Your task to perform on an android device: change your default location settings in chrome Image 0: 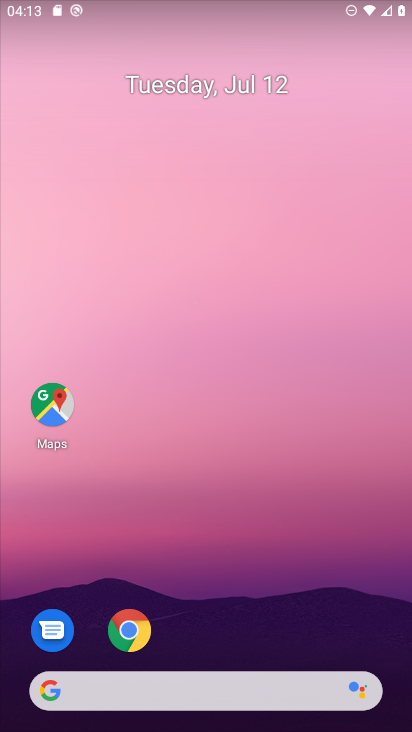
Step 0: click (125, 631)
Your task to perform on an android device: change your default location settings in chrome Image 1: 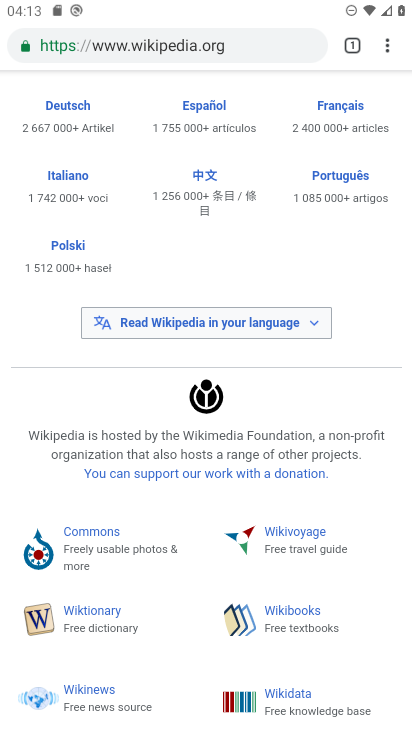
Step 1: click (386, 48)
Your task to perform on an android device: change your default location settings in chrome Image 2: 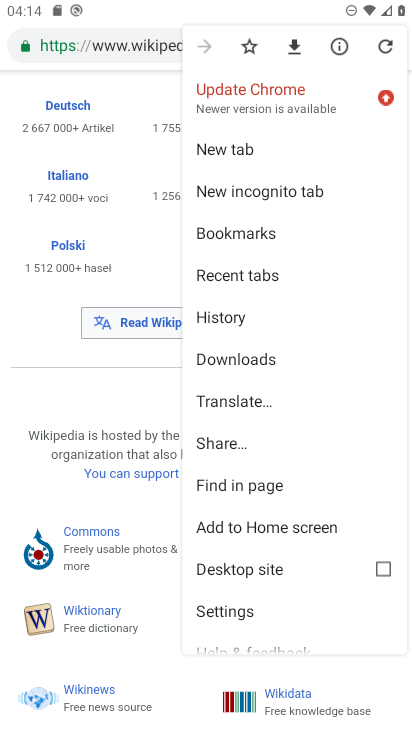
Step 2: click (222, 615)
Your task to perform on an android device: change your default location settings in chrome Image 3: 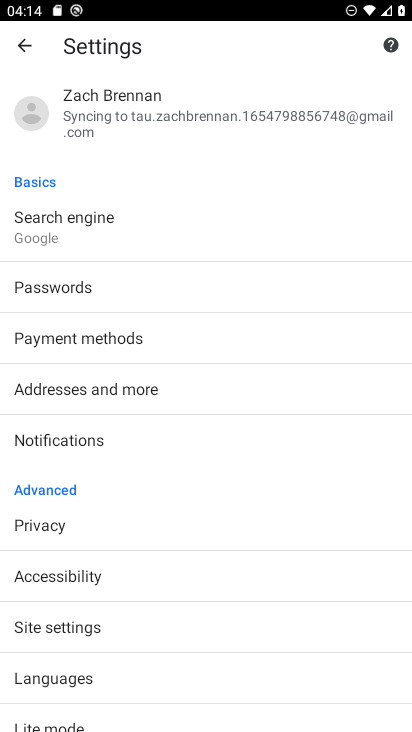
Step 3: click (54, 633)
Your task to perform on an android device: change your default location settings in chrome Image 4: 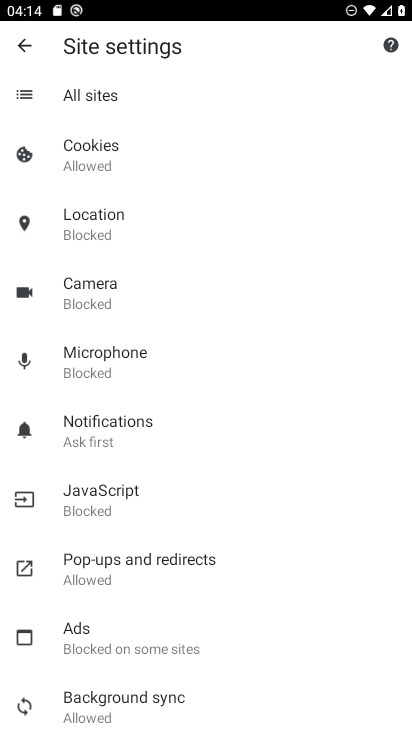
Step 4: click (80, 219)
Your task to perform on an android device: change your default location settings in chrome Image 5: 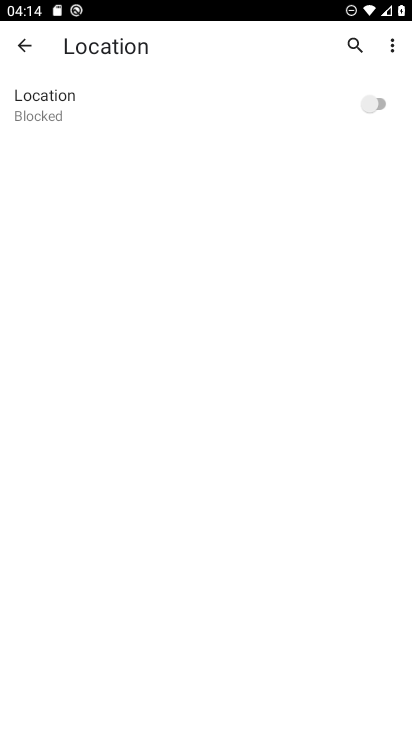
Step 5: click (380, 105)
Your task to perform on an android device: change your default location settings in chrome Image 6: 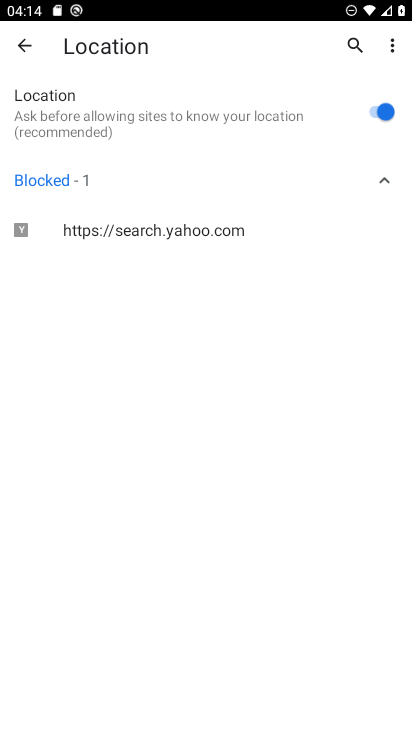
Step 6: task complete